Your task to perform on an android device: Open eBay Image 0: 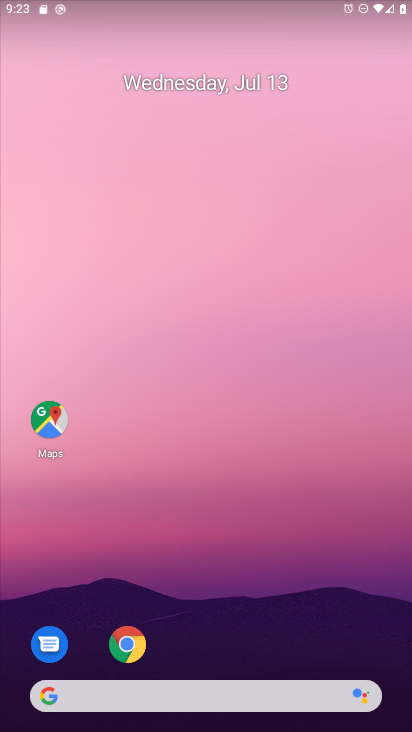
Step 0: click (190, 699)
Your task to perform on an android device: Open eBay Image 1: 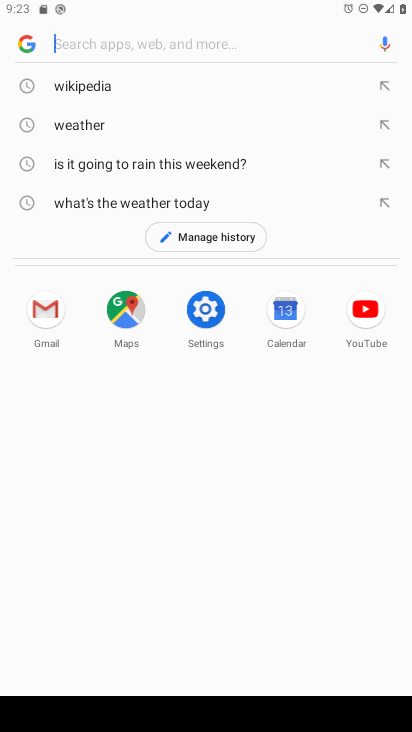
Step 1: type "eBay"
Your task to perform on an android device: Open eBay Image 2: 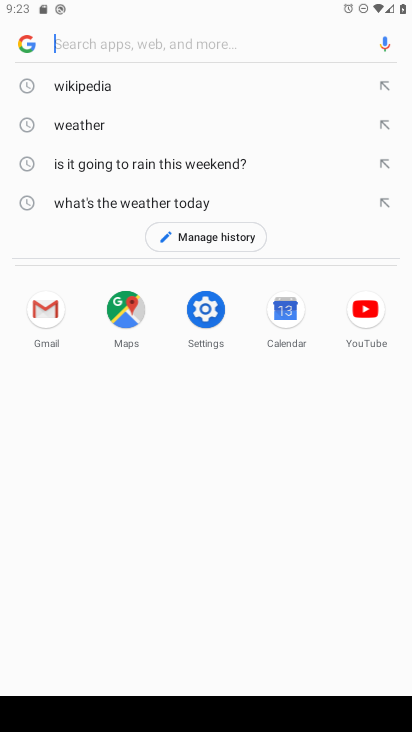
Step 2: click (80, 41)
Your task to perform on an android device: Open eBay Image 3: 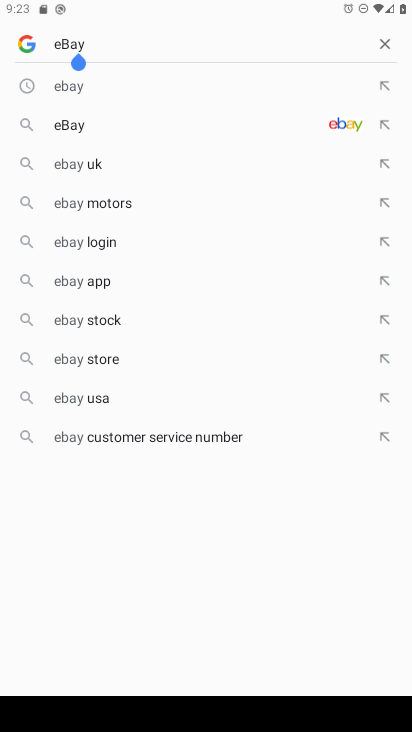
Step 3: click (337, 124)
Your task to perform on an android device: Open eBay Image 4: 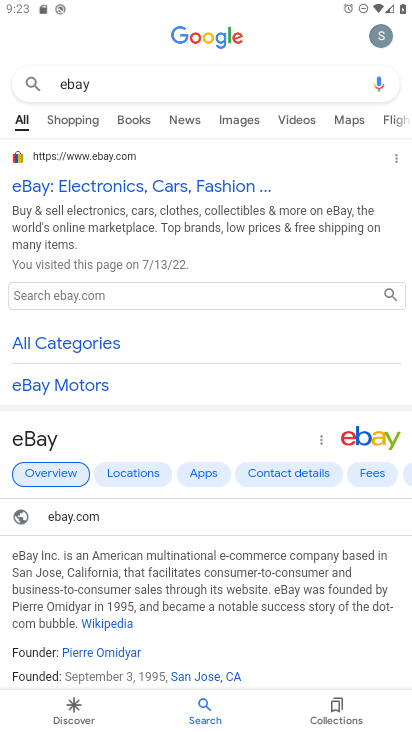
Step 4: click (98, 182)
Your task to perform on an android device: Open eBay Image 5: 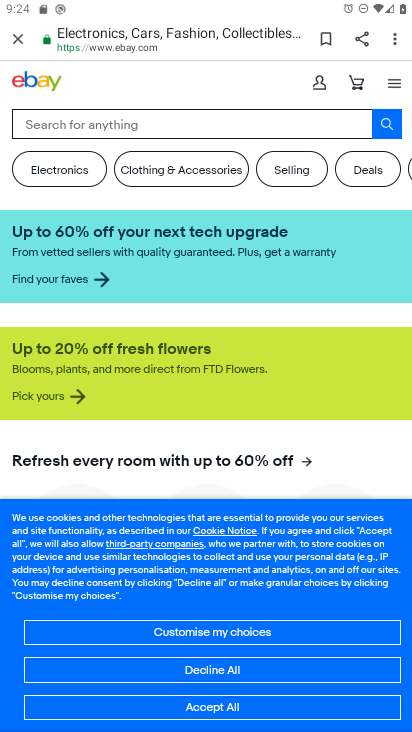
Step 5: task complete